Your task to perform on an android device: delete location history Image 0: 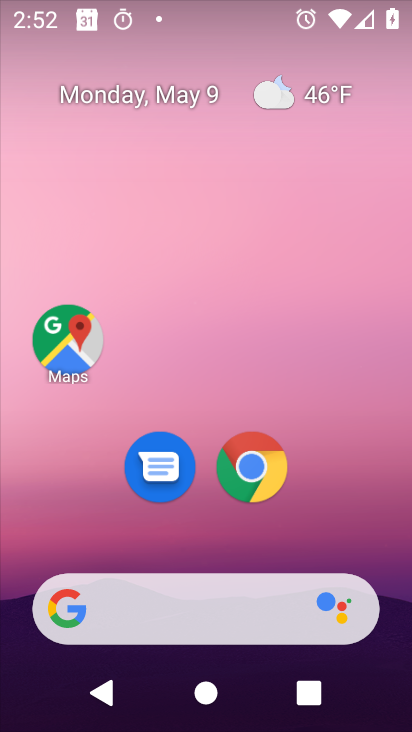
Step 0: drag from (349, 499) to (289, 110)
Your task to perform on an android device: delete location history Image 1: 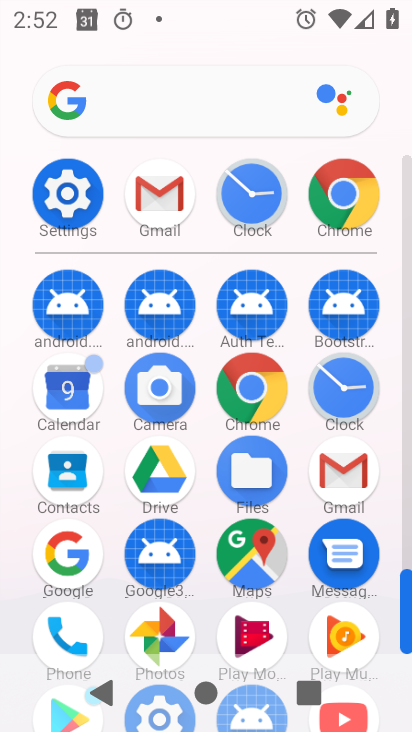
Step 1: drag from (270, 572) to (315, 204)
Your task to perform on an android device: delete location history Image 2: 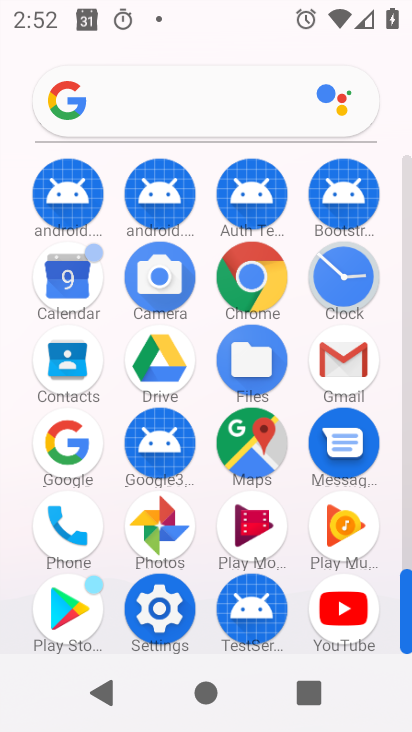
Step 2: click (256, 450)
Your task to perform on an android device: delete location history Image 3: 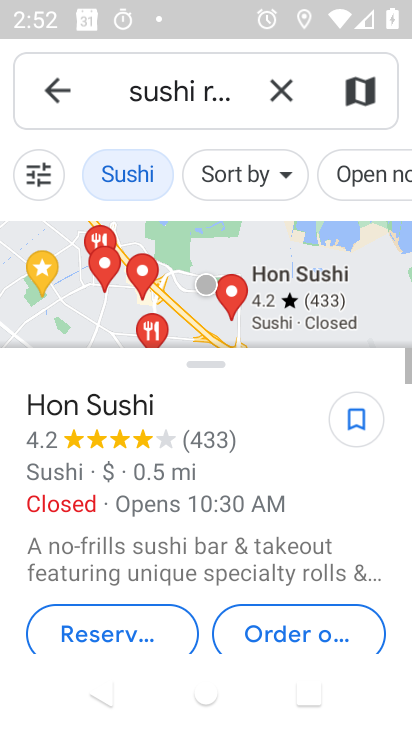
Step 3: click (61, 91)
Your task to perform on an android device: delete location history Image 4: 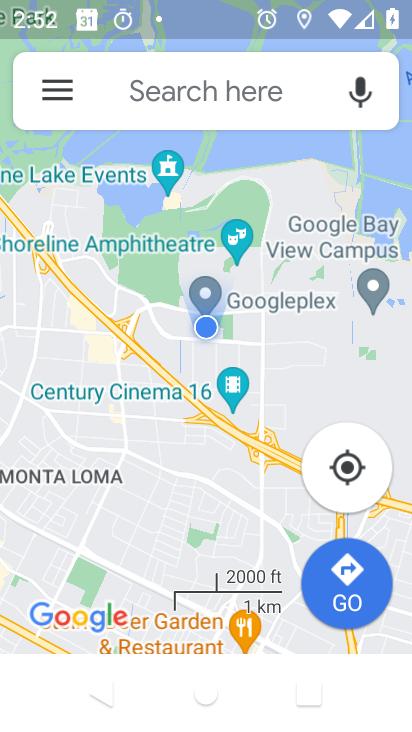
Step 4: click (60, 92)
Your task to perform on an android device: delete location history Image 5: 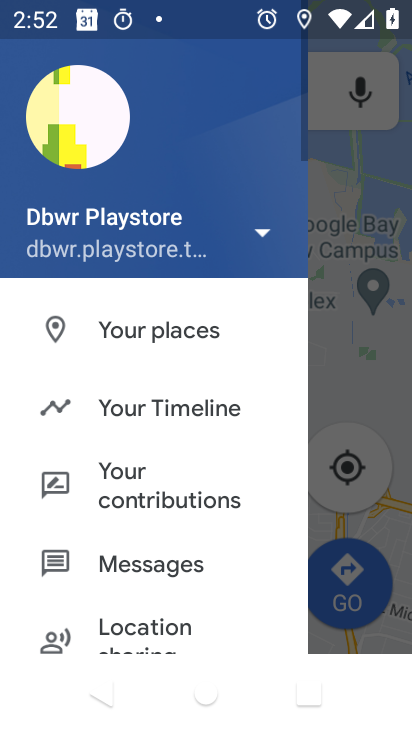
Step 5: drag from (177, 595) to (219, 132)
Your task to perform on an android device: delete location history Image 6: 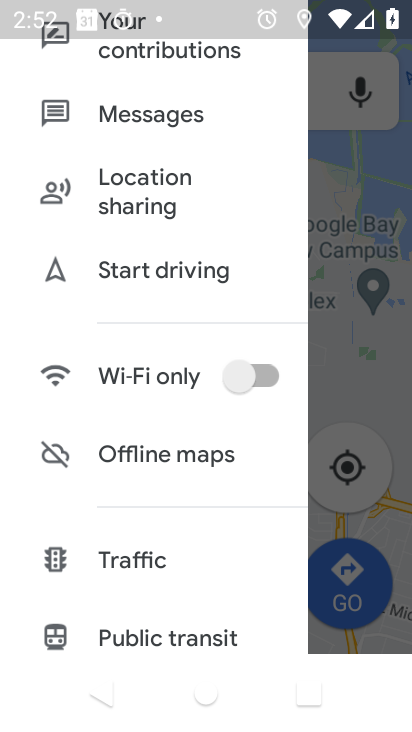
Step 6: drag from (161, 548) to (243, 176)
Your task to perform on an android device: delete location history Image 7: 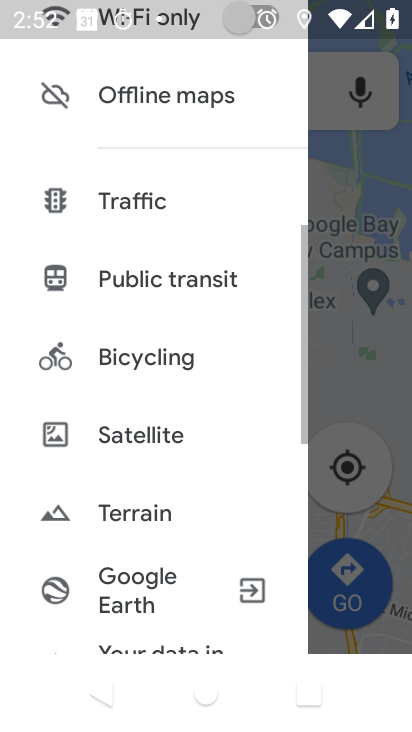
Step 7: drag from (186, 544) to (238, 240)
Your task to perform on an android device: delete location history Image 8: 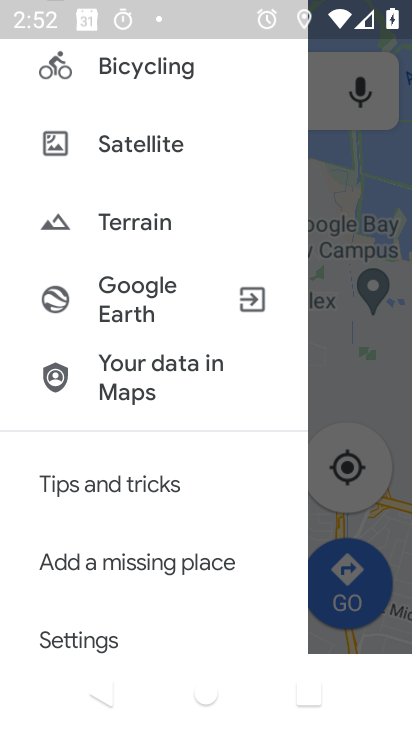
Step 8: drag from (167, 562) to (282, 207)
Your task to perform on an android device: delete location history Image 9: 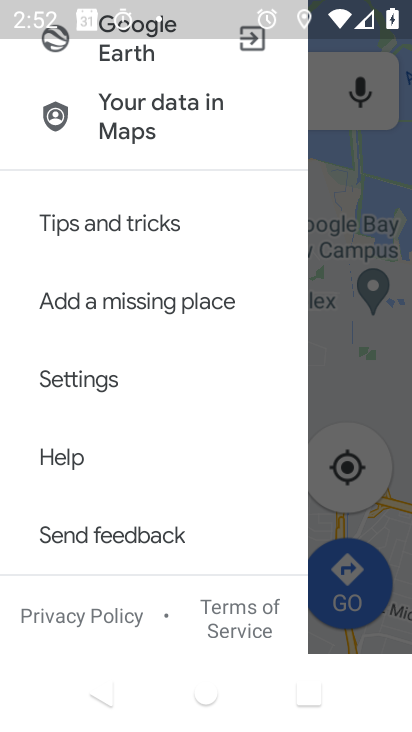
Step 9: click (99, 390)
Your task to perform on an android device: delete location history Image 10: 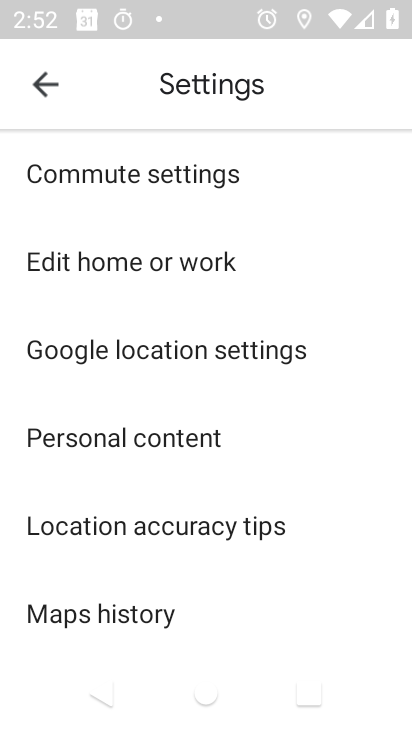
Step 10: drag from (261, 579) to (305, 228)
Your task to perform on an android device: delete location history Image 11: 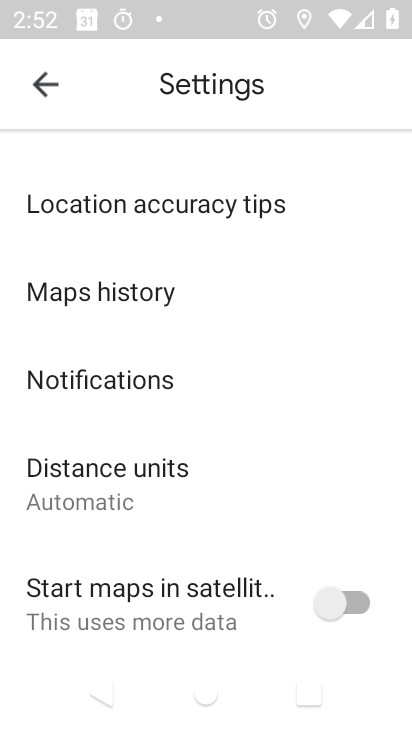
Step 11: click (129, 288)
Your task to perform on an android device: delete location history Image 12: 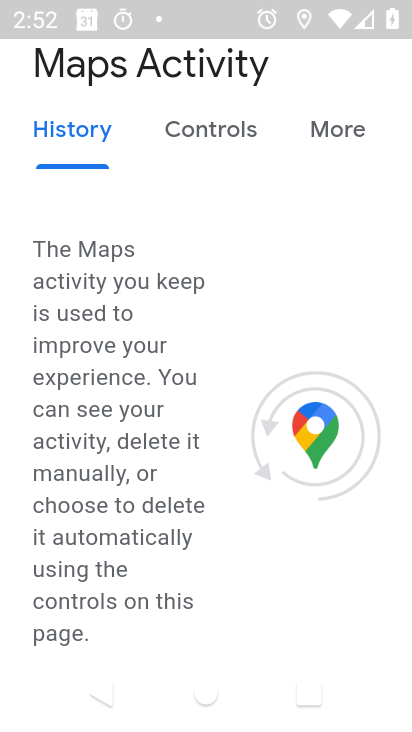
Step 12: drag from (154, 578) to (228, 213)
Your task to perform on an android device: delete location history Image 13: 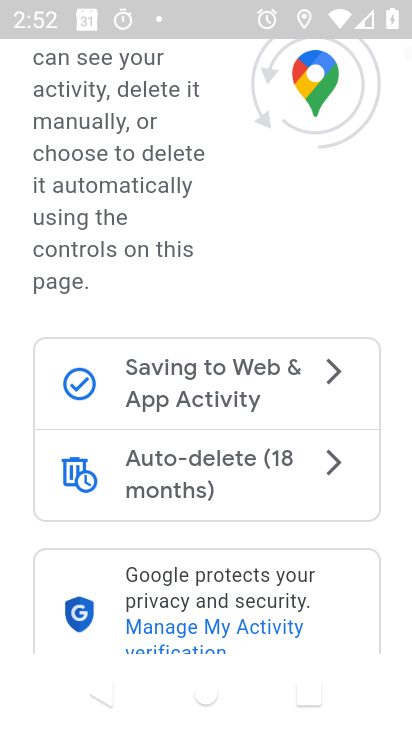
Step 13: drag from (193, 562) to (249, 273)
Your task to perform on an android device: delete location history Image 14: 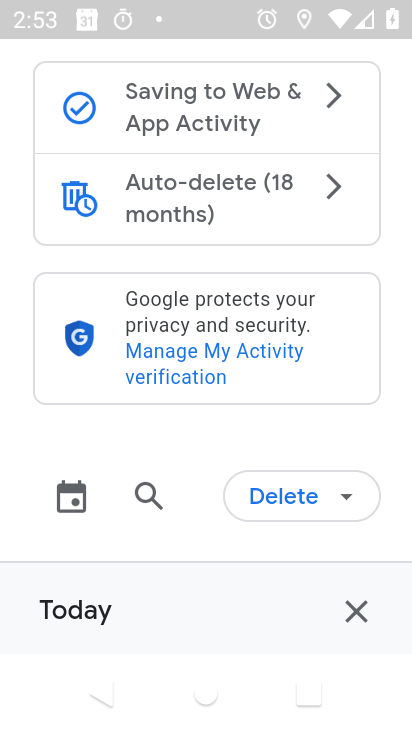
Step 14: click (279, 506)
Your task to perform on an android device: delete location history Image 15: 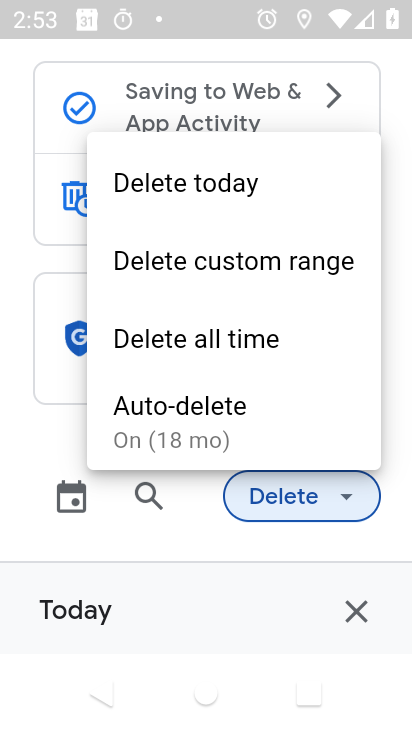
Step 15: click (356, 495)
Your task to perform on an android device: delete location history Image 16: 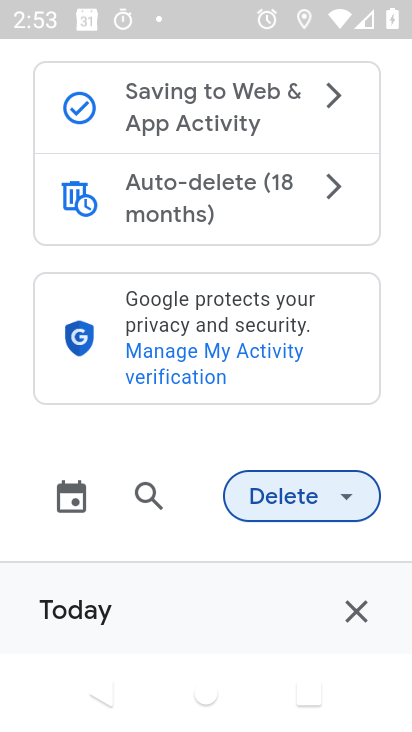
Step 16: click (356, 495)
Your task to perform on an android device: delete location history Image 17: 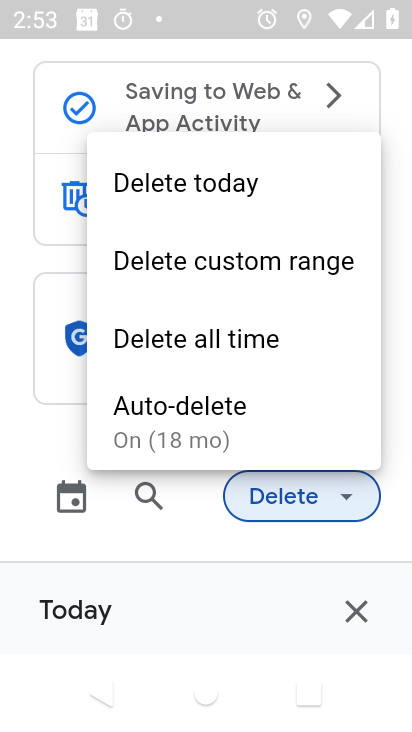
Step 17: click (258, 334)
Your task to perform on an android device: delete location history Image 18: 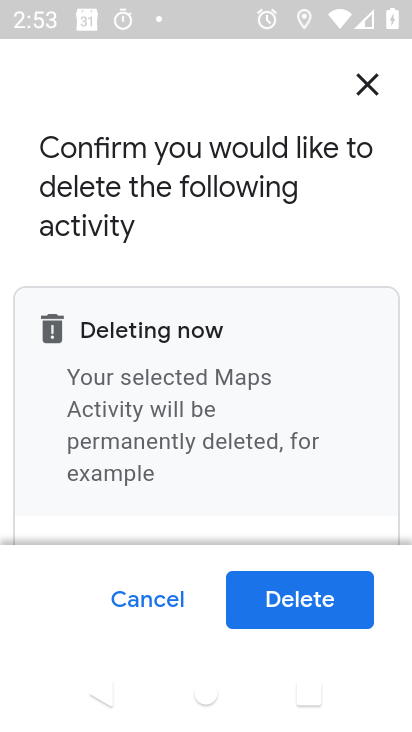
Step 18: click (297, 618)
Your task to perform on an android device: delete location history Image 19: 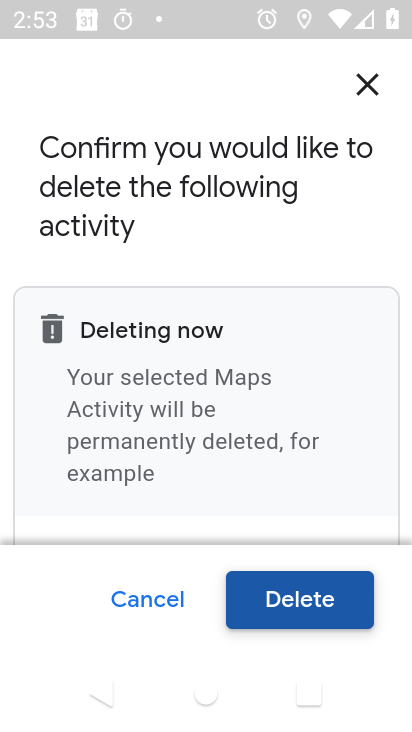
Step 19: click (297, 598)
Your task to perform on an android device: delete location history Image 20: 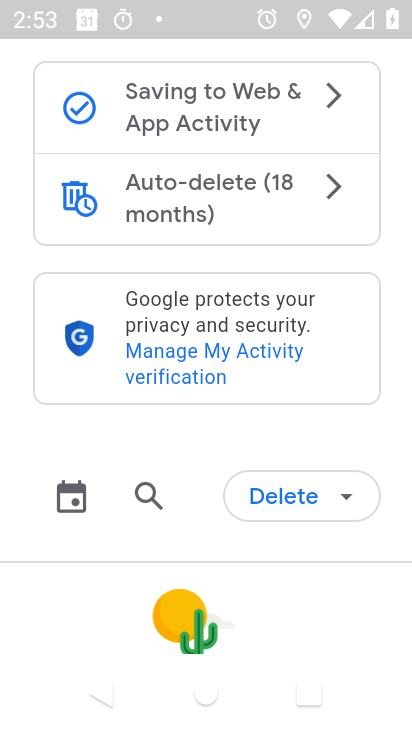
Step 20: task complete